Your task to perform on an android device: Go to CNN.com Image 0: 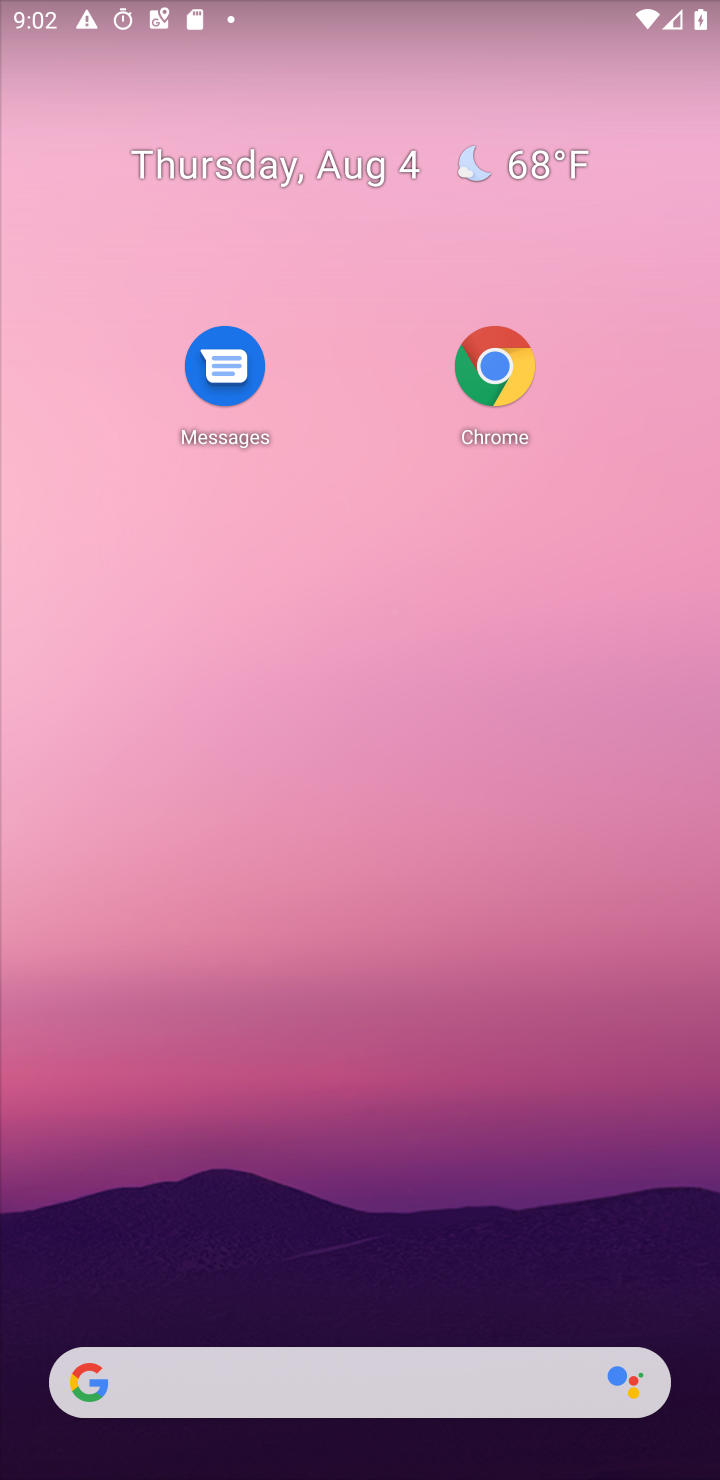
Step 0: press home button
Your task to perform on an android device: Go to CNN.com Image 1: 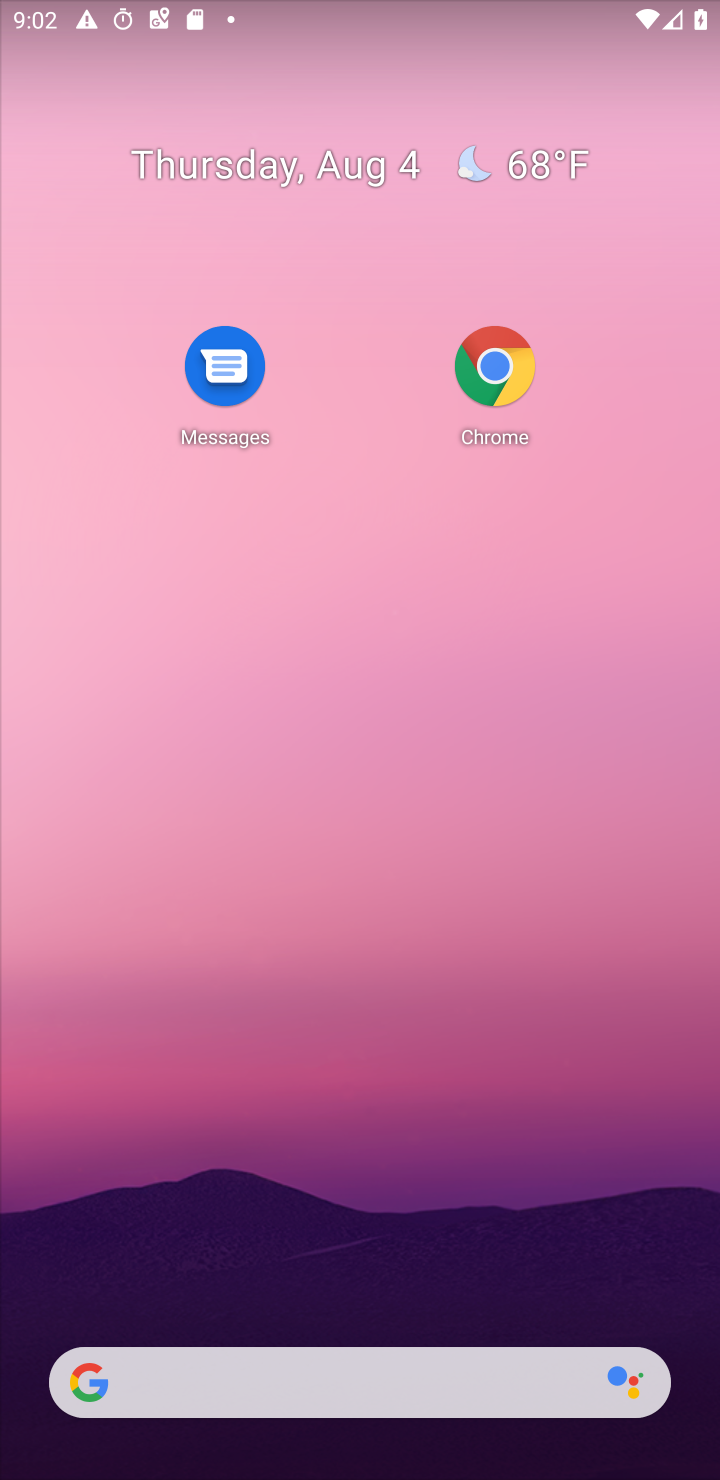
Step 1: click (308, 1367)
Your task to perform on an android device: Go to CNN.com Image 2: 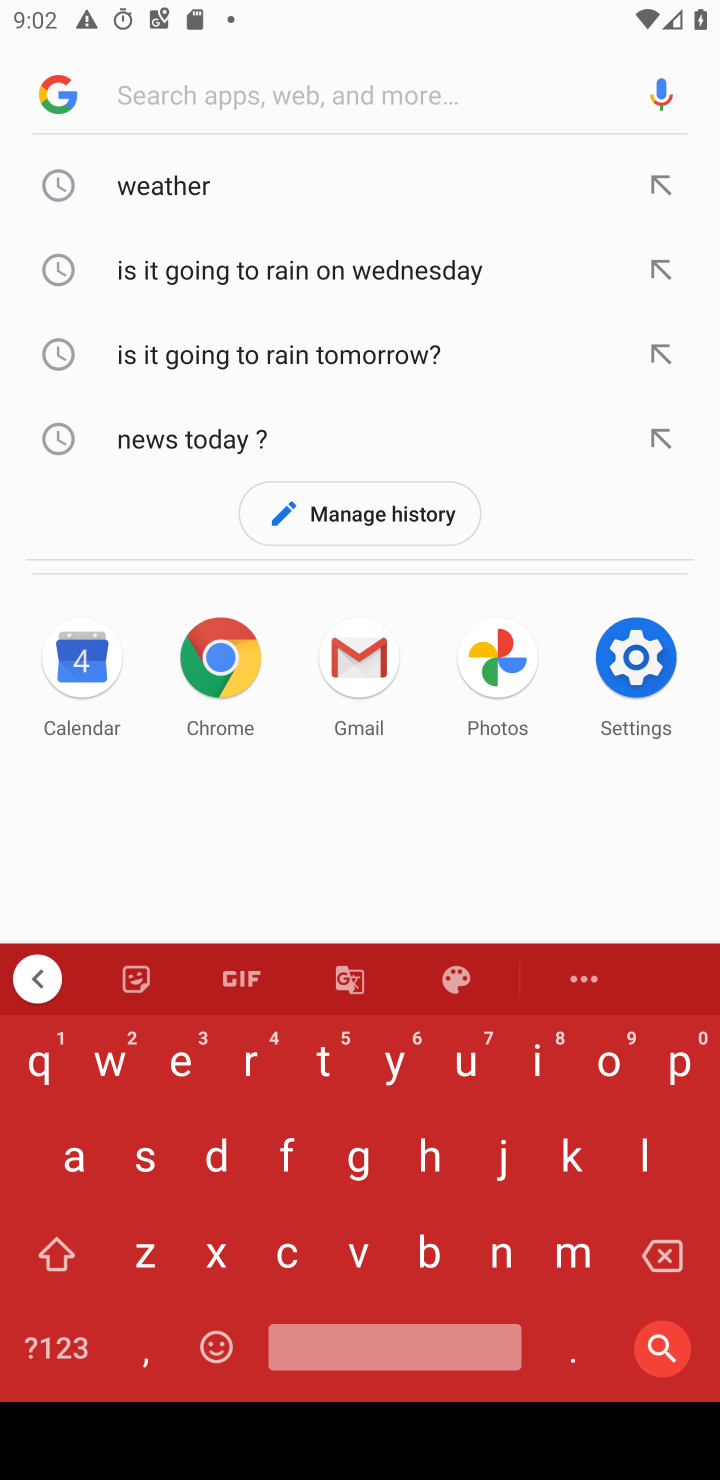
Step 2: click (297, 1270)
Your task to perform on an android device: Go to CNN.com Image 3: 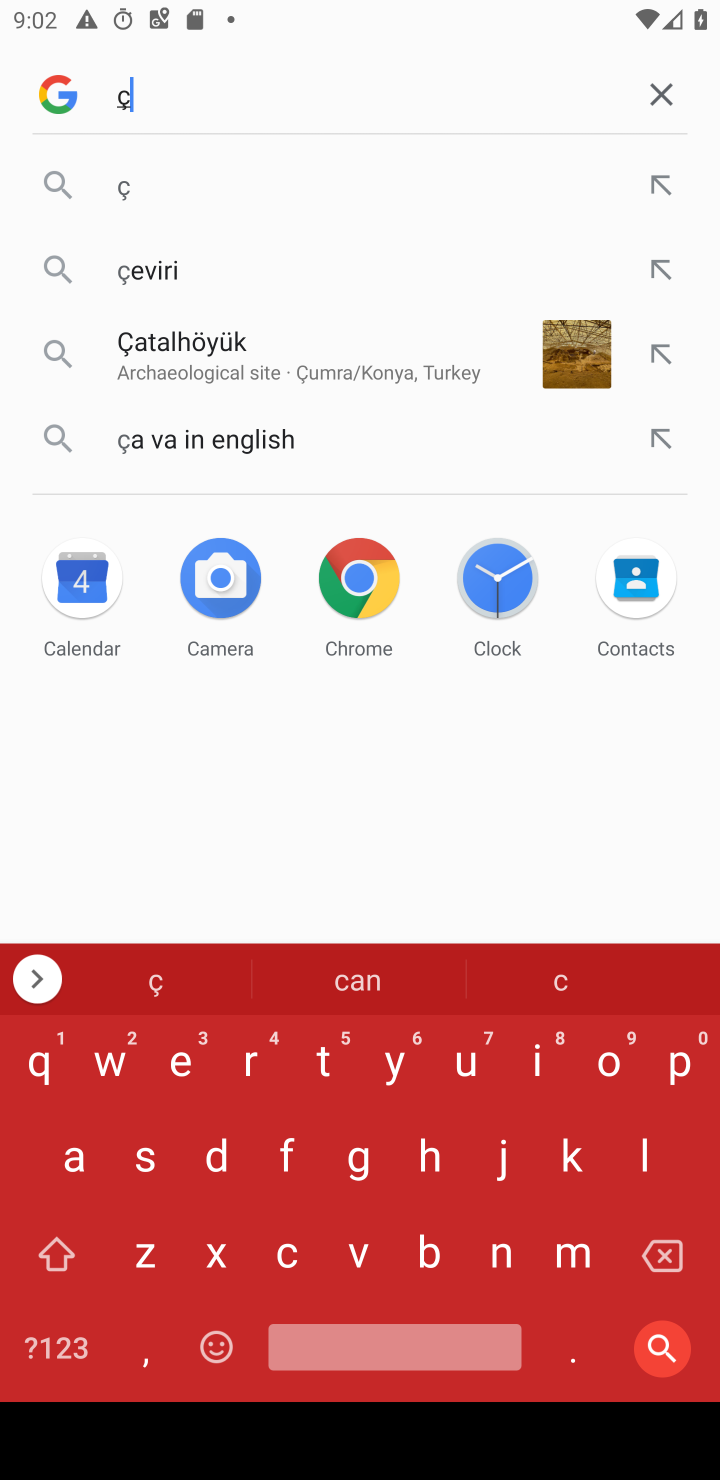
Step 3: click (657, 86)
Your task to perform on an android device: Go to CNN.com Image 4: 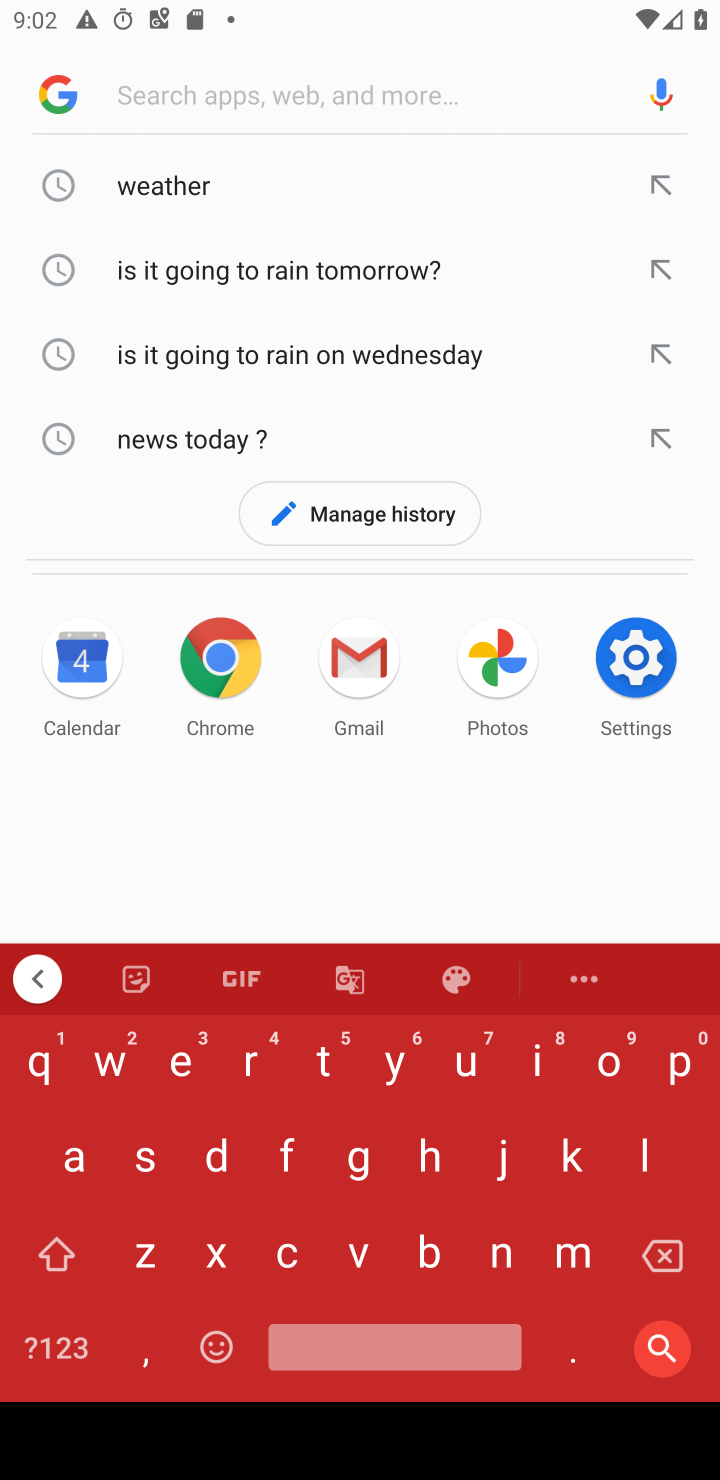
Step 4: click (290, 1248)
Your task to perform on an android device: Go to CNN.com Image 5: 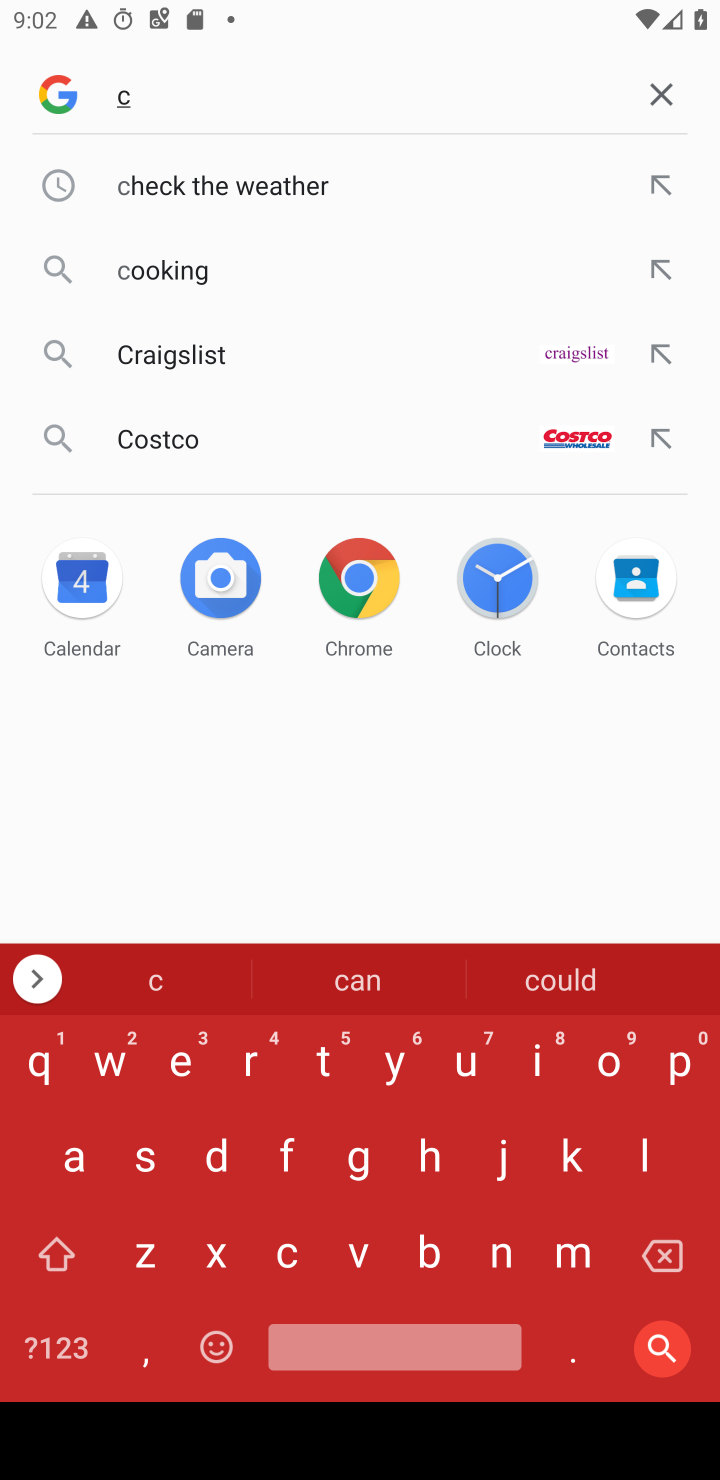
Step 5: click (503, 1252)
Your task to perform on an android device: Go to CNN.com Image 6: 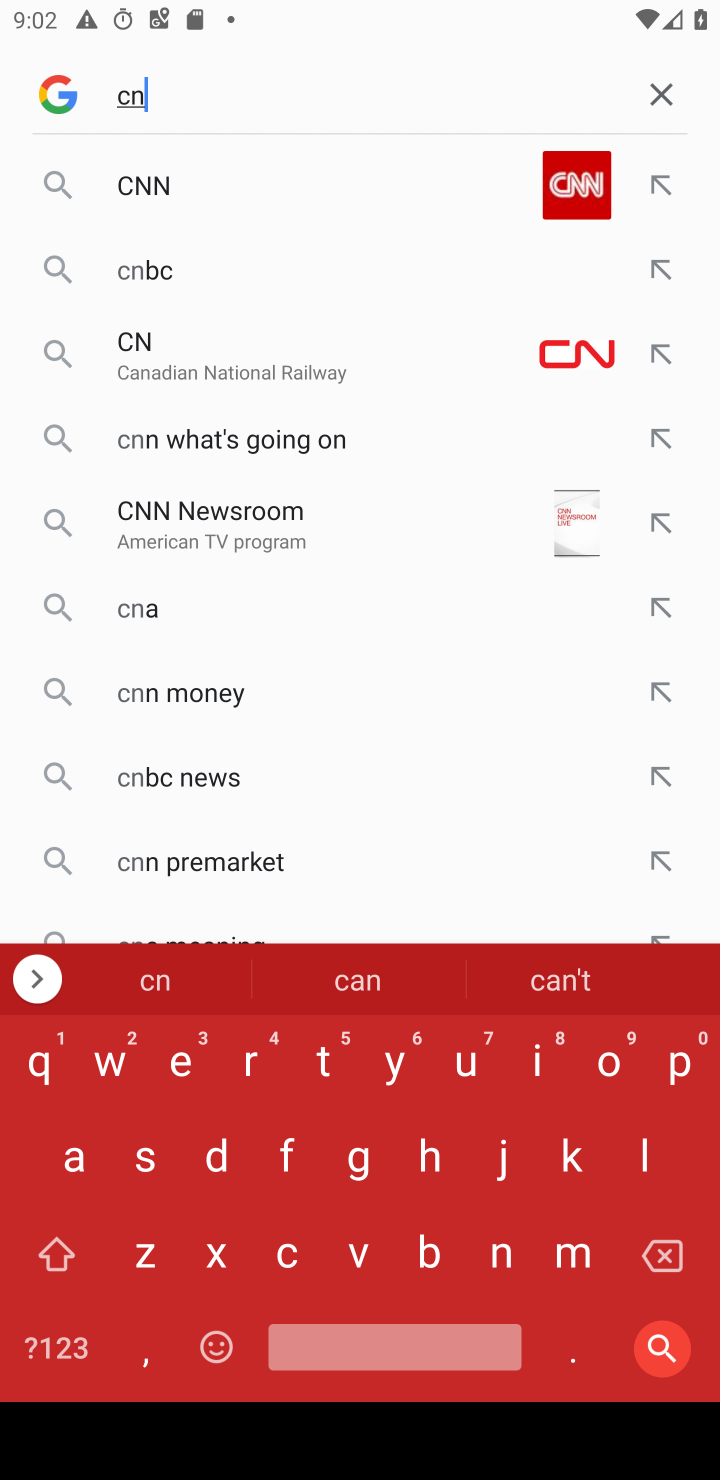
Step 6: click (503, 1252)
Your task to perform on an android device: Go to CNN.com Image 7: 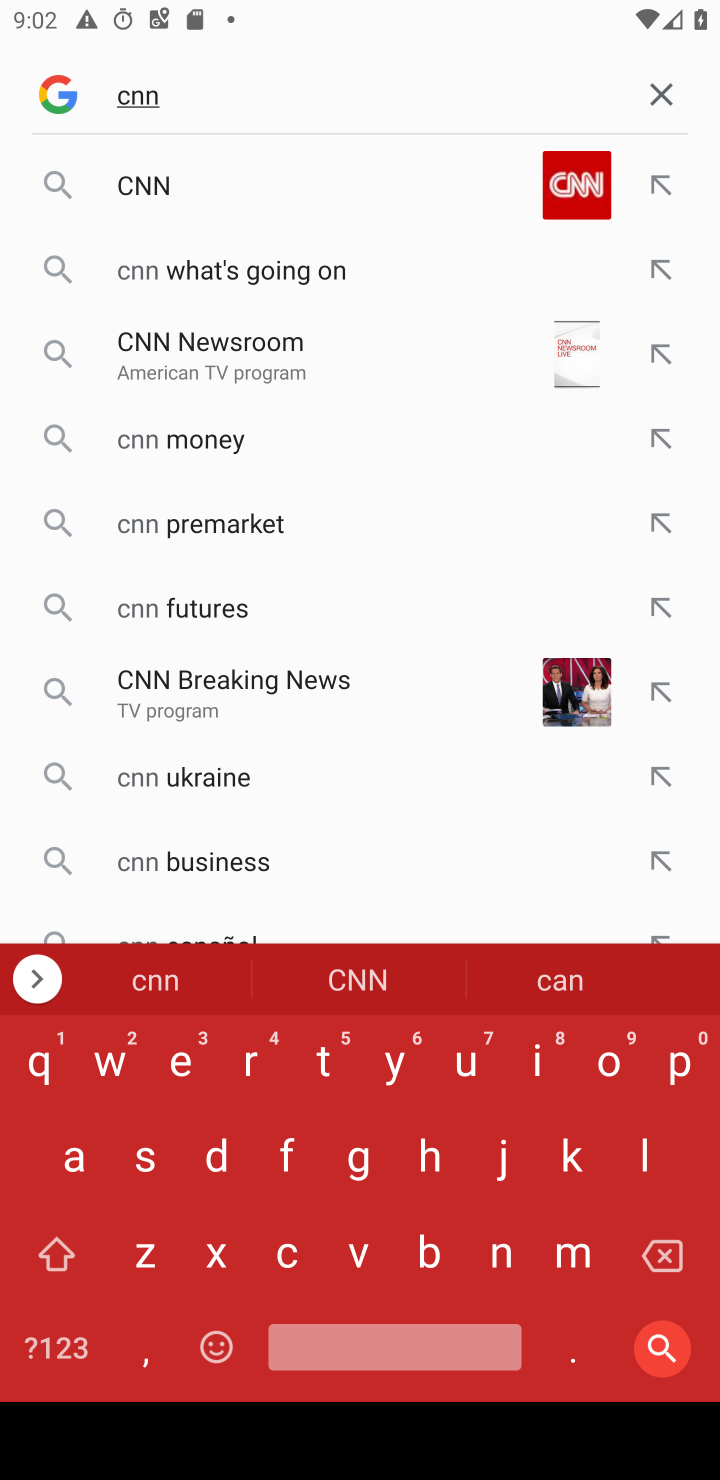
Step 7: click (176, 211)
Your task to perform on an android device: Go to CNN.com Image 8: 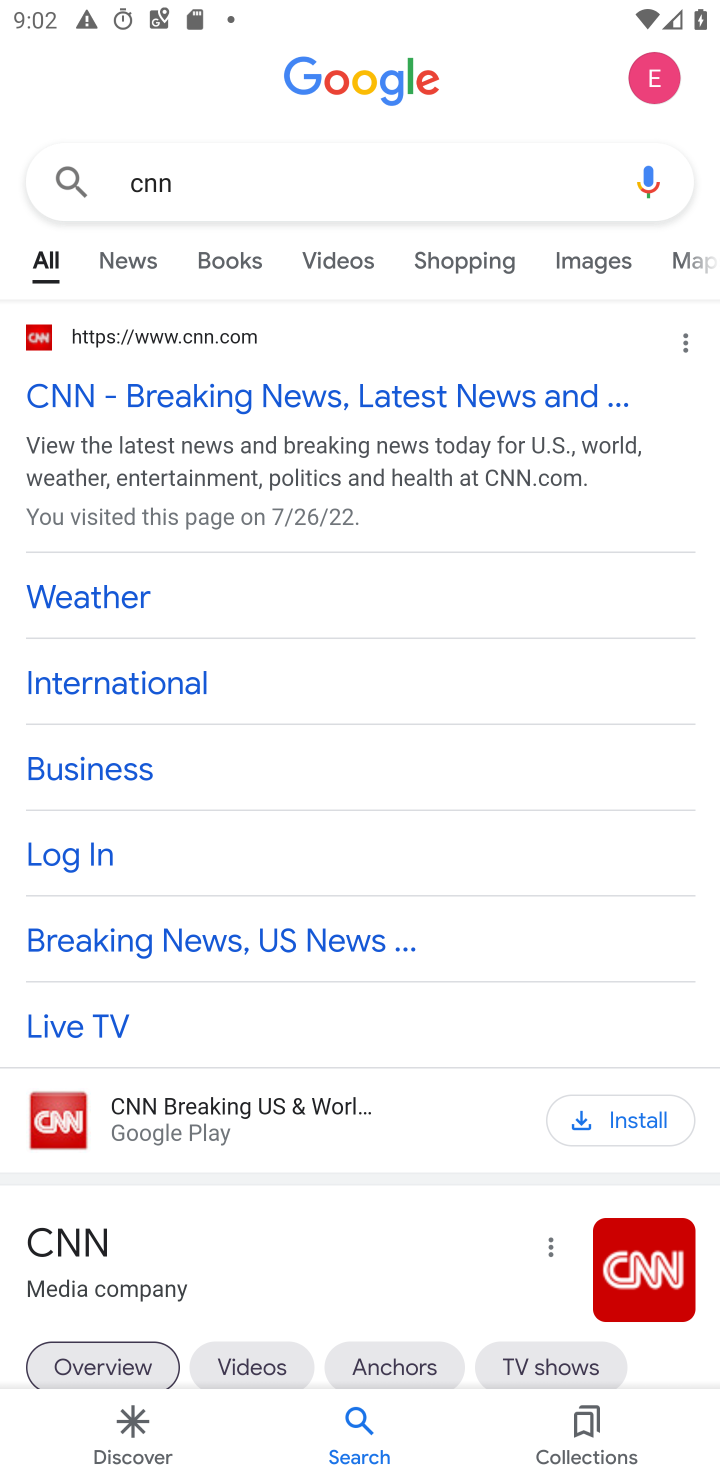
Step 8: click (147, 388)
Your task to perform on an android device: Go to CNN.com Image 9: 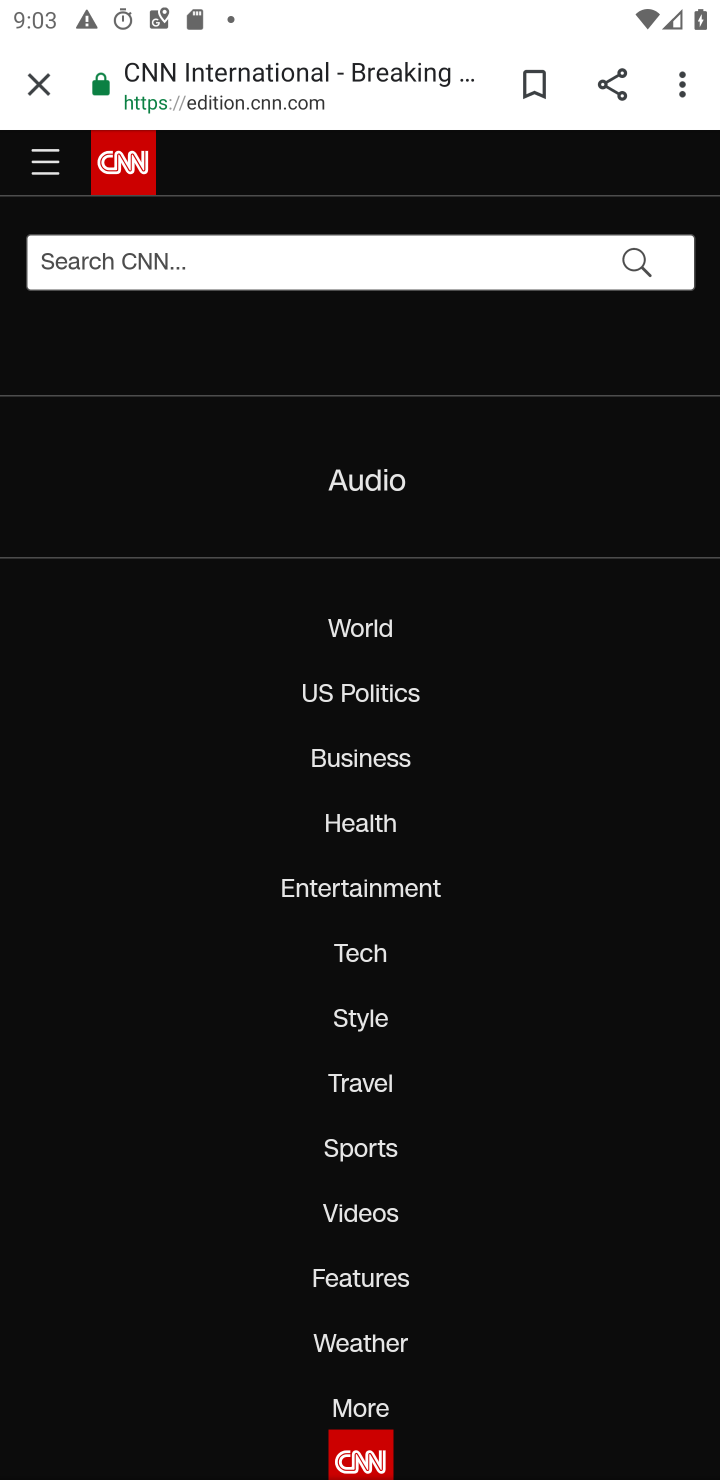
Step 9: task complete